Your task to perform on an android device: Open the web browser Image 0: 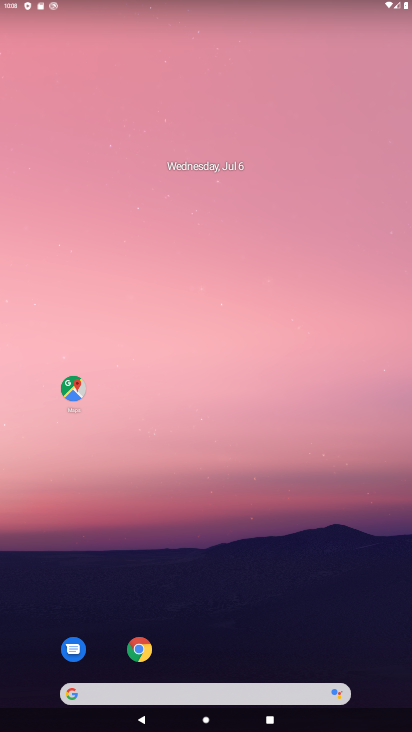
Step 0: click (133, 643)
Your task to perform on an android device: Open the web browser Image 1: 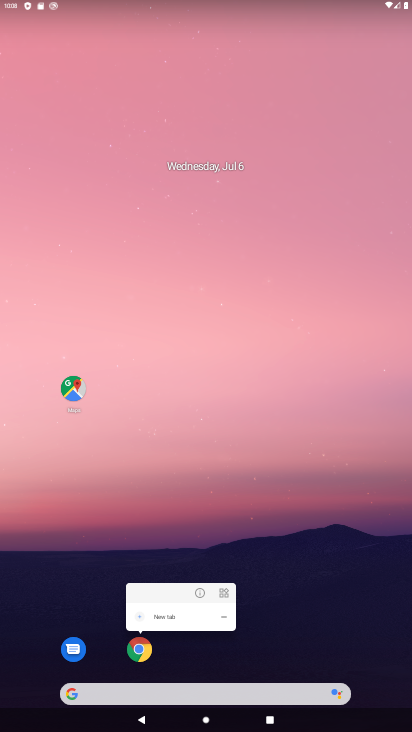
Step 1: click (128, 653)
Your task to perform on an android device: Open the web browser Image 2: 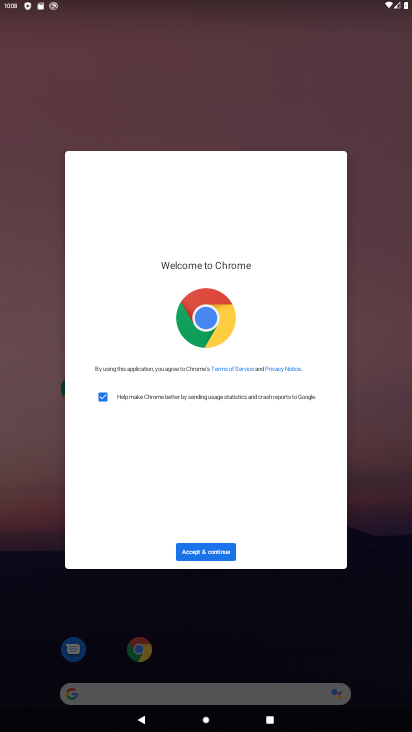
Step 2: click (205, 548)
Your task to perform on an android device: Open the web browser Image 3: 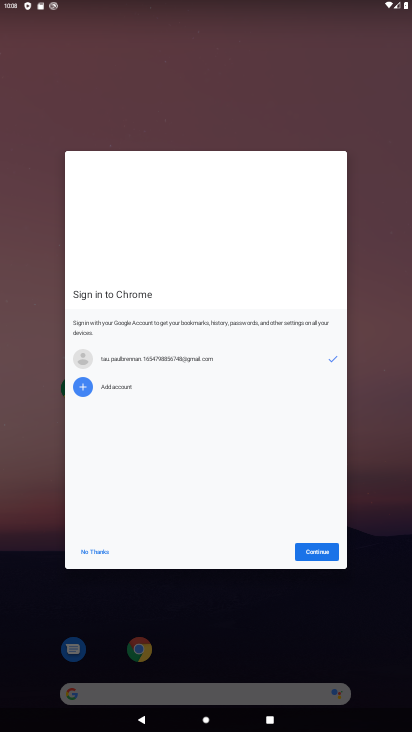
Step 3: click (334, 546)
Your task to perform on an android device: Open the web browser Image 4: 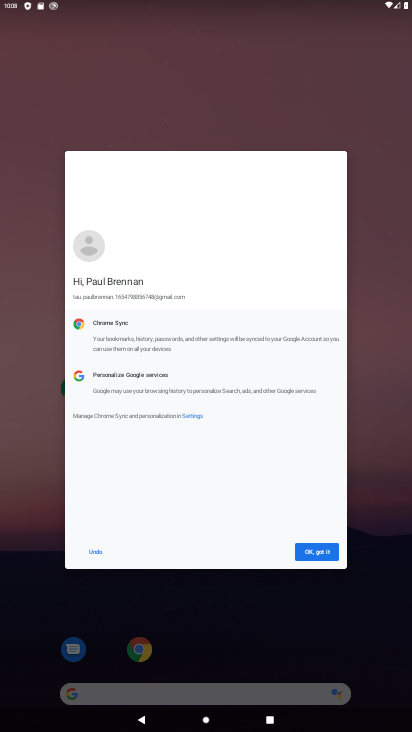
Step 4: click (317, 546)
Your task to perform on an android device: Open the web browser Image 5: 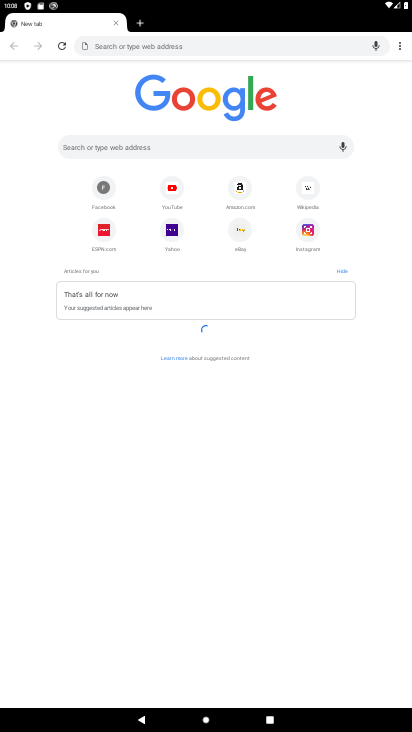
Step 5: task complete